Your task to perform on an android device: search for starred emails in the gmail app Image 0: 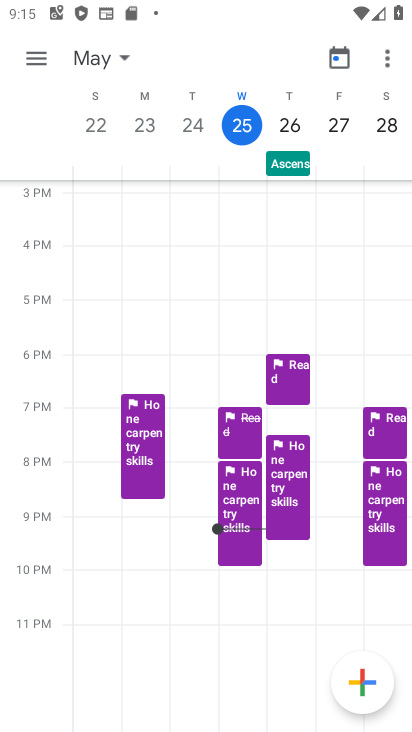
Step 0: press back button
Your task to perform on an android device: search for starred emails in the gmail app Image 1: 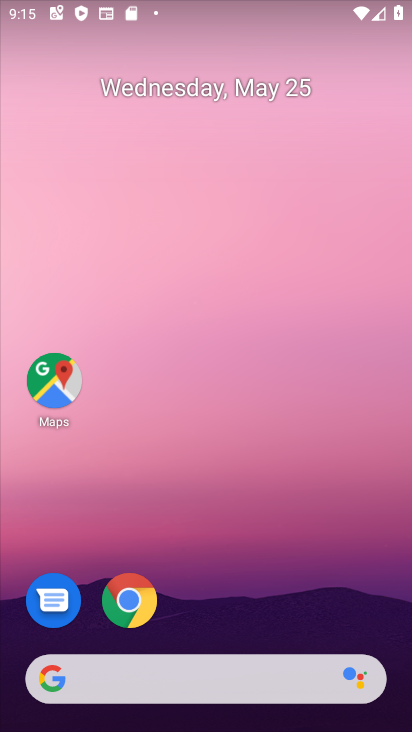
Step 1: drag from (259, 599) to (222, 12)
Your task to perform on an android device: search for starred emails in the gmail app Image 2: 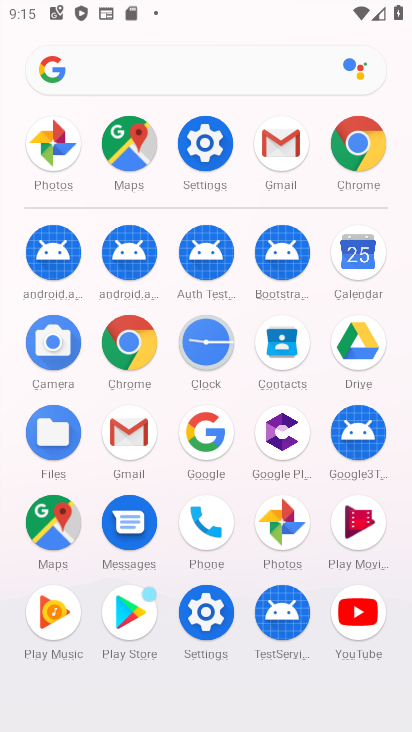
Step 2: click (128, 429)
Your task to perform on an android device: search for starred emails in the gmail app Image 3: 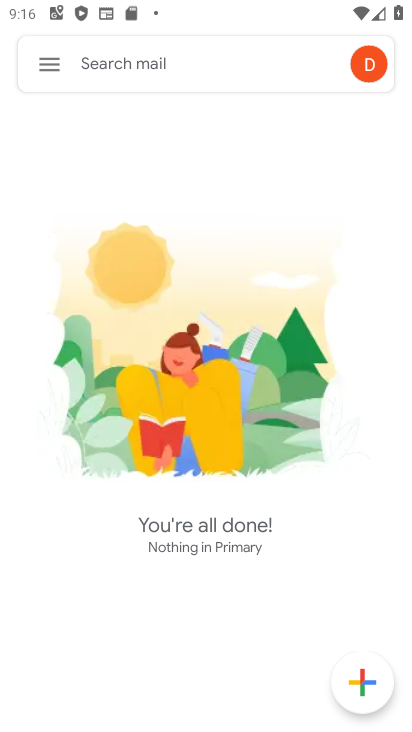
Step 3: click (54, 60)
Your task to perform on an android device: search for starred emails in the gmail app Image 4: 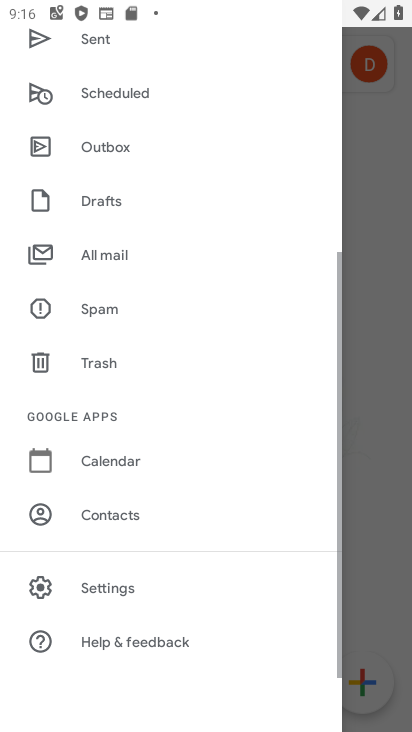
Step 4: drag from (156, 120) to (166, 548)
Your task to perform on an android device: search for starred emails in the gmail app Image 5: 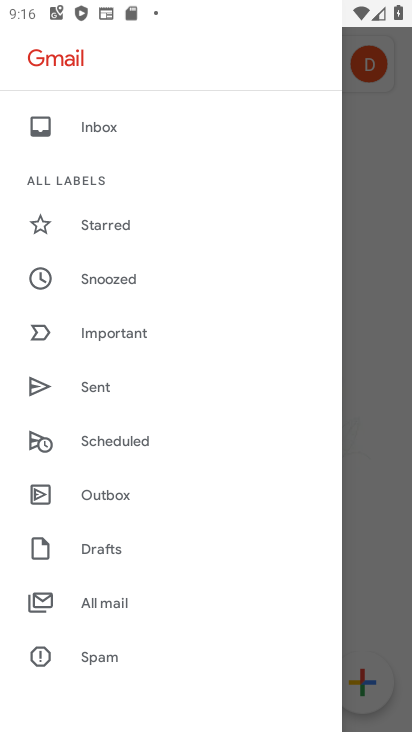
Step 5: click (109, 228)
Your task to perform on an android device: search for starred emails in the gmail app Image 6: 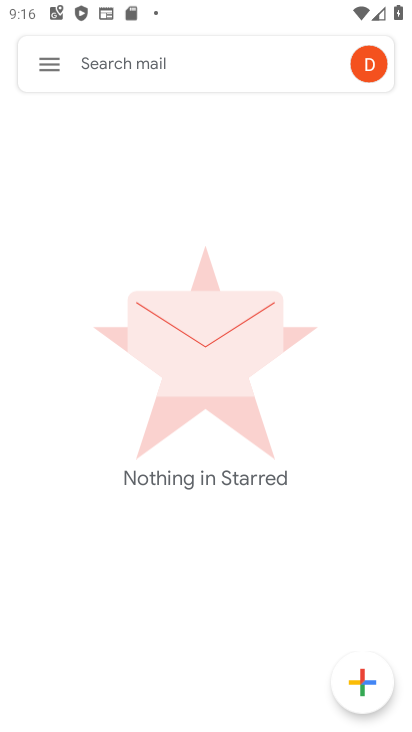
Step 6: task complete